Your task to perform on an android device: turn off translation in the chrome app Image 0: 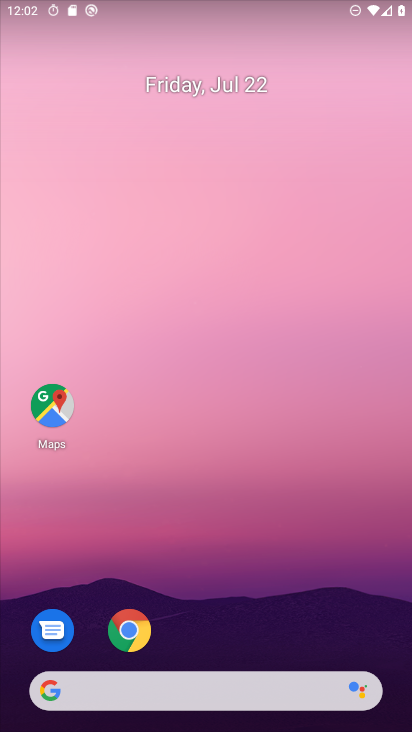
Step 0: press home button
Your task to perform on an android device: turn off translation in the chrome app Image 1: 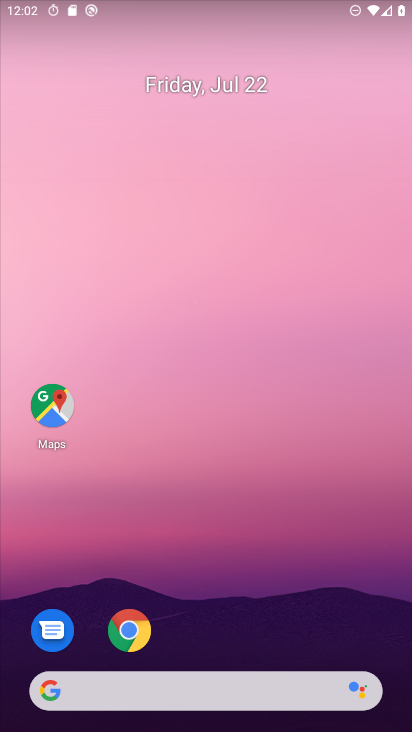
Step 1: click (140, 636)
Your task to perform on an android device: turn off translation in the chrome app Image 2: 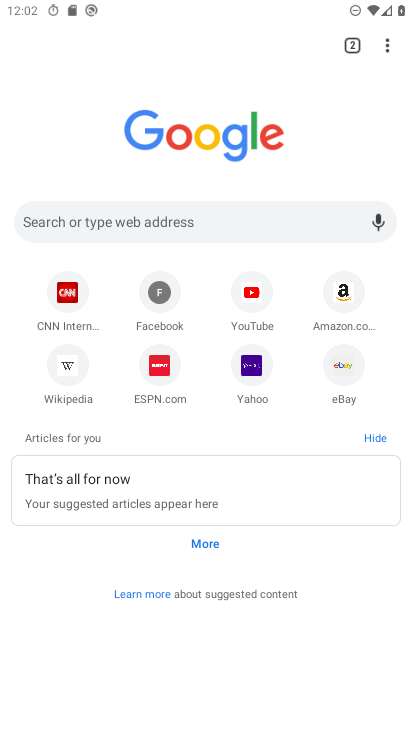
Step 2: drag from (382, 44) to (225, 436)
Your task to perform on an android device: turn off translation in the chrome app Image 3: 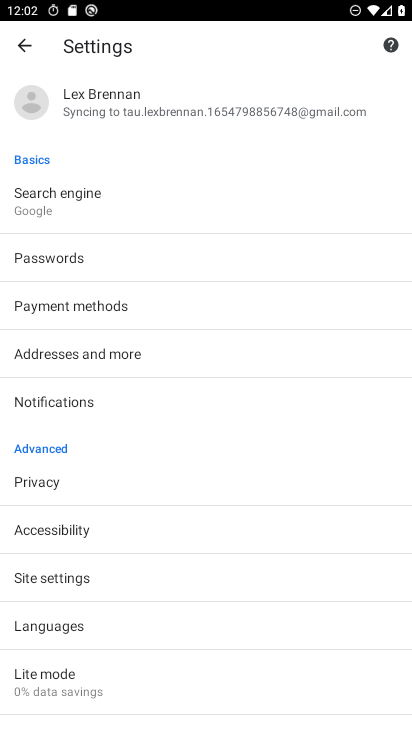
Step 3: click (64, 625)
Your task to perform on an android device: turn off translation in the chrome app Image 4: 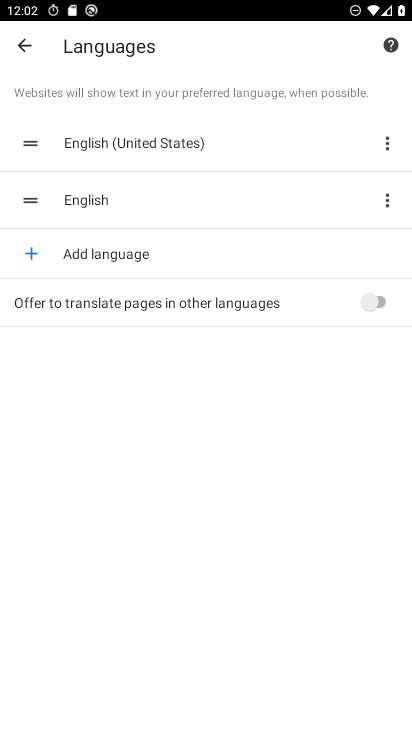
Step 4: task complete